Your task to perform on an android device: empty trash in the gmail app Image 0: 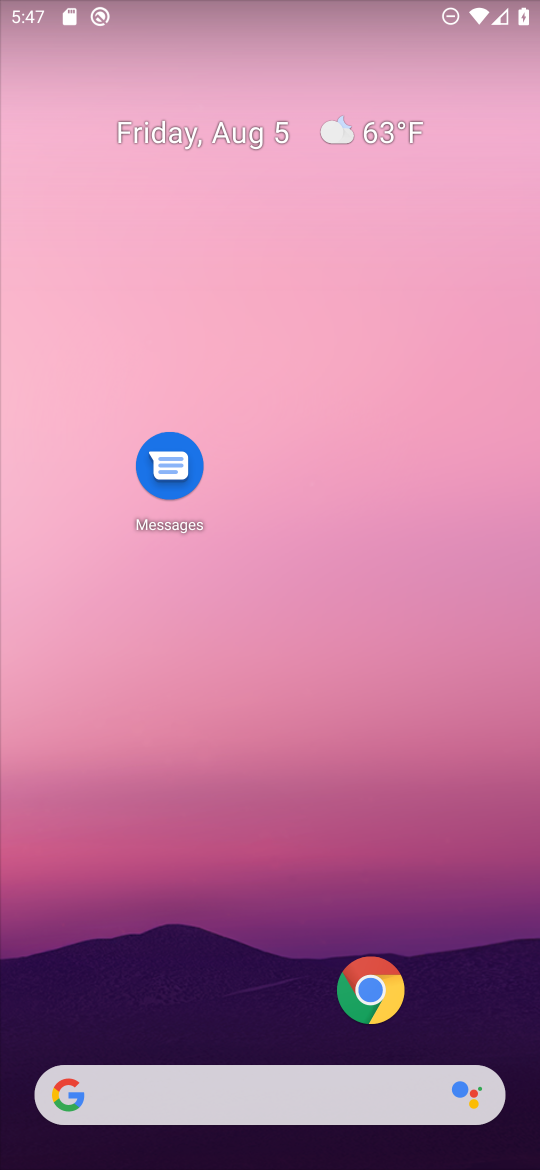
Step 0: drag from (186, 1040) to (177, 591)
Your task to perform on an android device: empty trash in the gmail app Image 1: 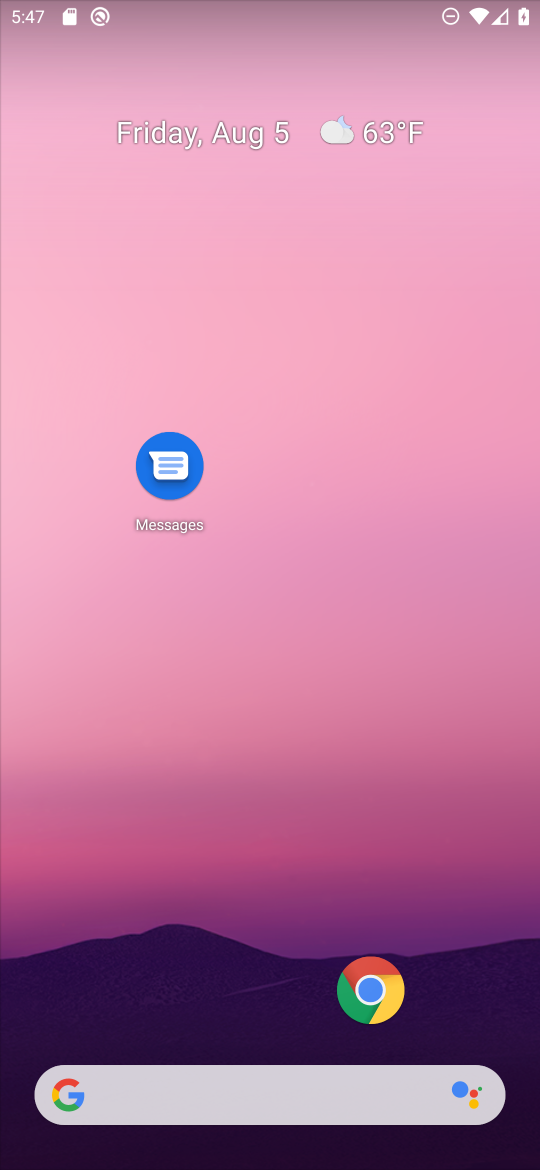
Step 1: drag from (273, 1030) to (236, 467)
Your task to perform on an android device: empty trash in the gmail app Image 2: 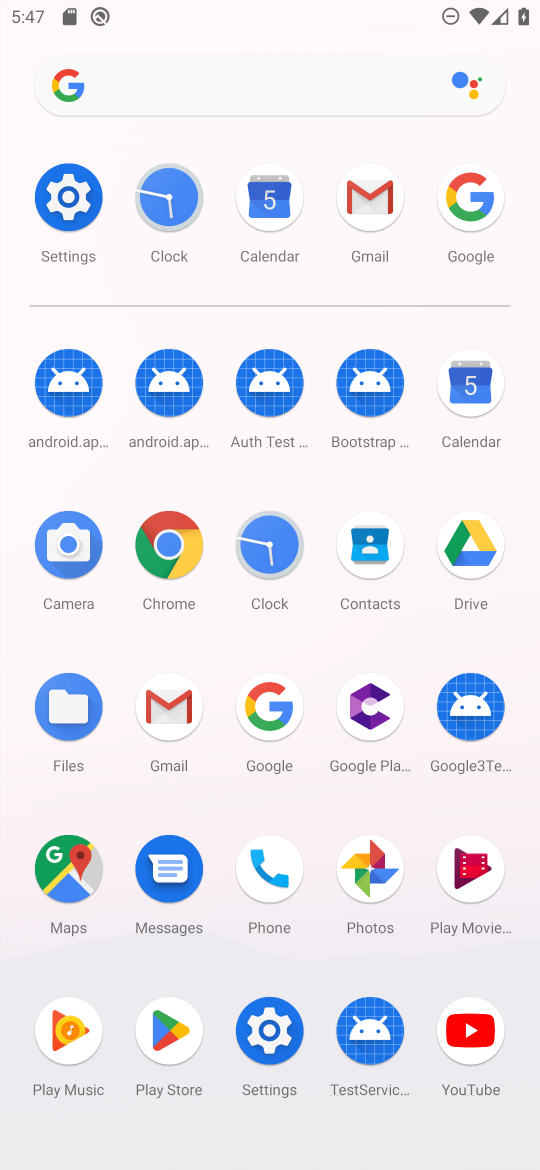
Step 2: click (371, 206)
Your task to perform on an android device: empty trash in the gmail app Image 3: 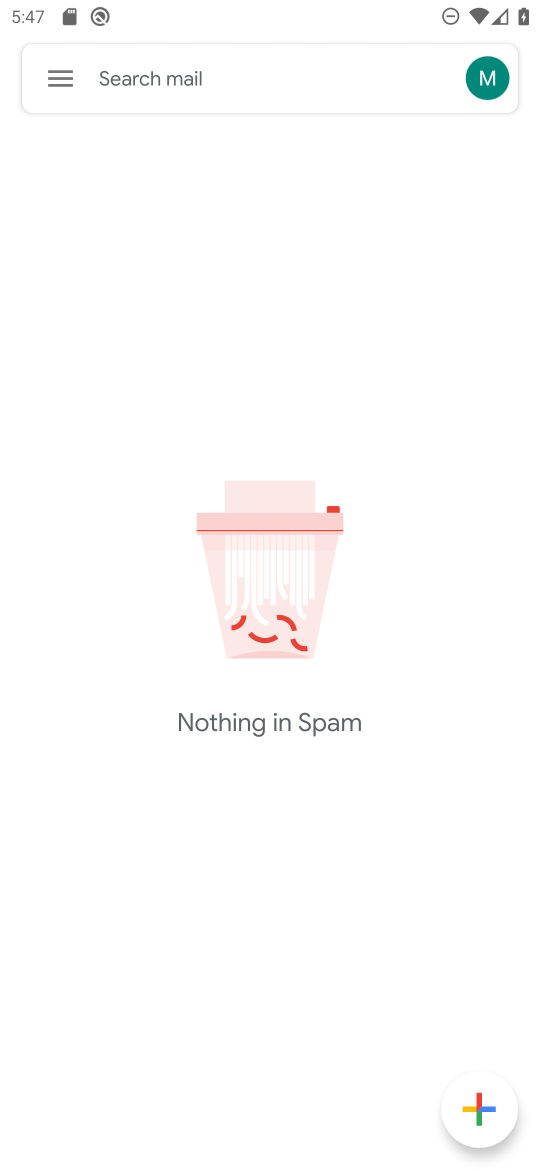
Step 3: click (71, 73)
Your task to perform on an android device: empty trash in the gmail app Image 4: 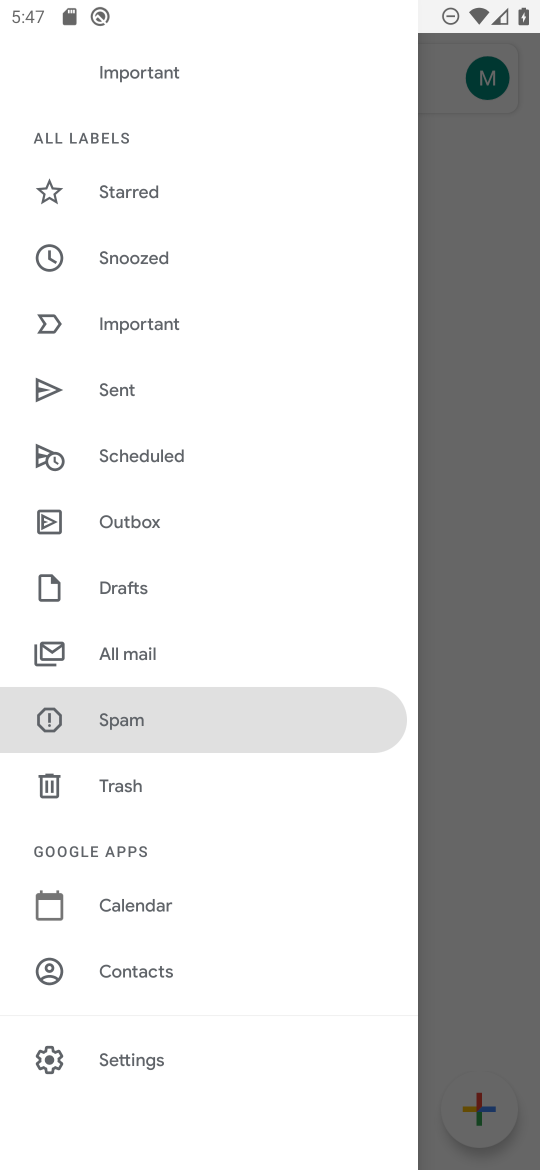
Step 4: click (102, 762)
Your task to perform on an android device: empty trash in the gmail app Image 5: 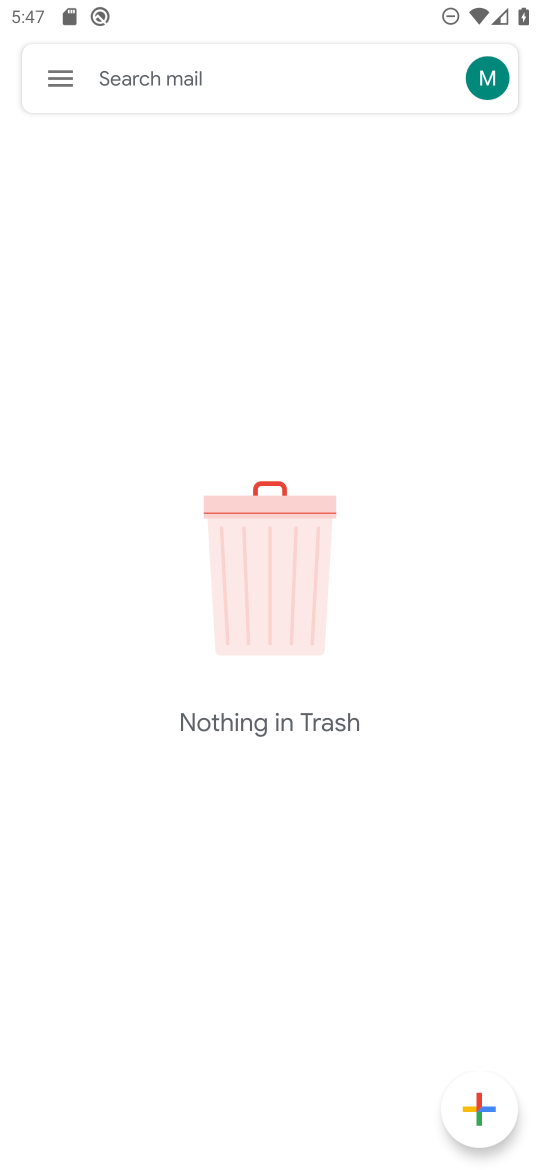
Step 5: task complete